Your task to perform on an android device: Set the phone to "Do not disturb". Image 0: 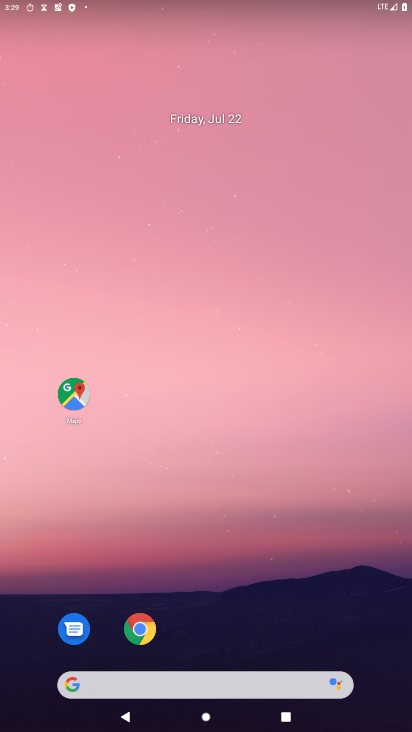
Step 0: drag from (175, 680) to (248, 2)
Your task to perform on an android device: Set the phone to "Do not disturb". Image 1: 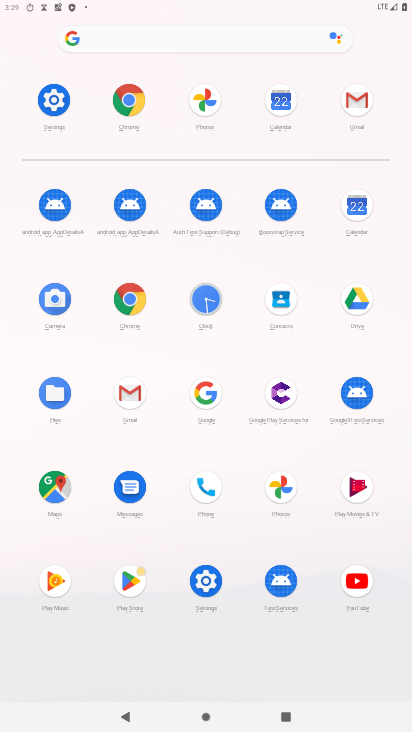
Step 1: click (56, 94)
Your task to perform on an android device: Set the phone to "Do not disturb". Image 2: 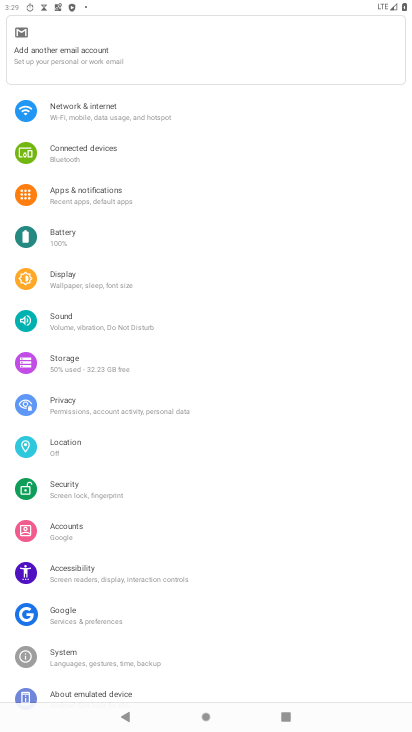
Step 2: click (100, 319)
Your task to perform on an android device: Set the phone to "Do not disturb". Image 3: 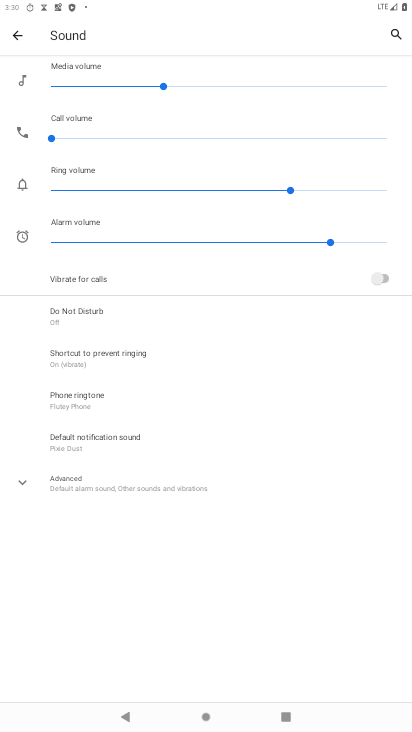
Step 3: task complete